Your task to perform on an android device: delete a single message in the gmail app Image 0: 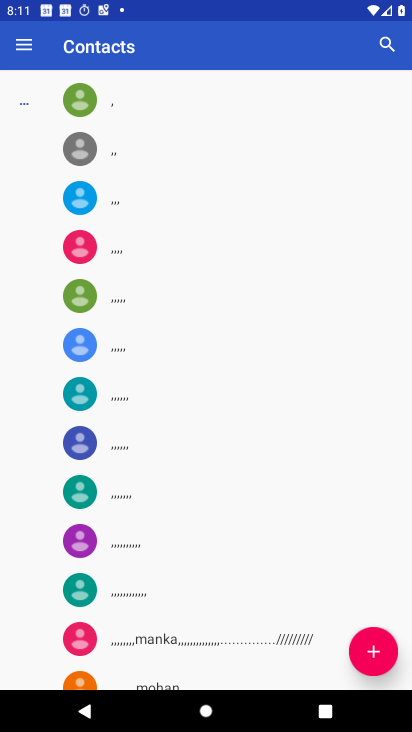
Step 0: press home button
Your task to perform on an android device: delete a single message in the gmail app Image 1: 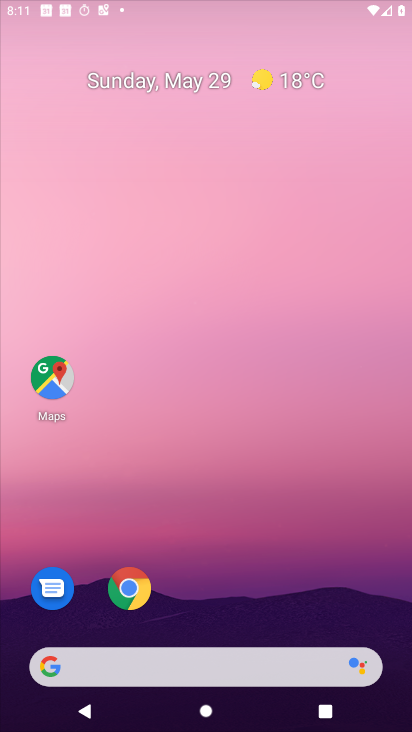
Step 1: drag from (175, 552) to (234, 147)
Your task to perform on an android device: delete a single message in the gmail app Image 2: 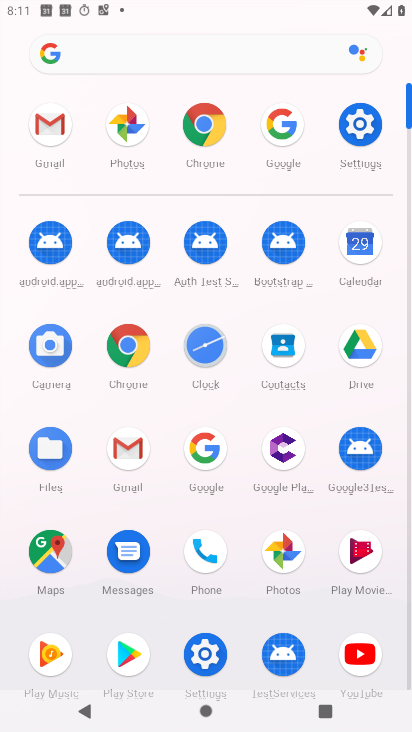
Step 2: click (47, 126)
Your task to perform on an android device: delete a single message in the gmail app Image 3: 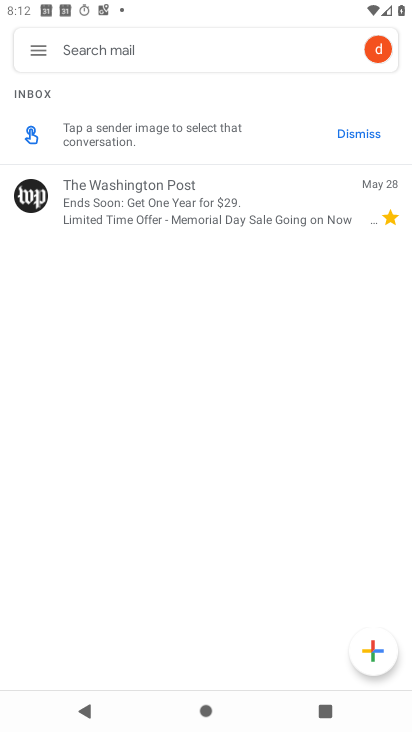
Step 3: click (148, 206)
Your task to perform on an android device: delete a single message in the gmail app Image 4: 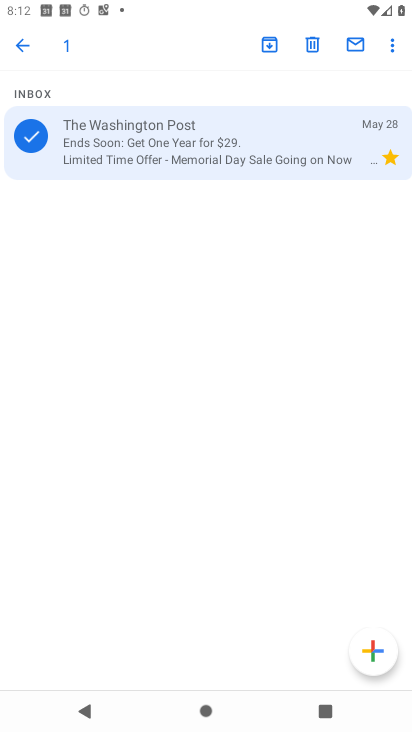
Step 4: click (309, 41)
Your task to perform on an android device: delete a single message in the gmail app Image 5: 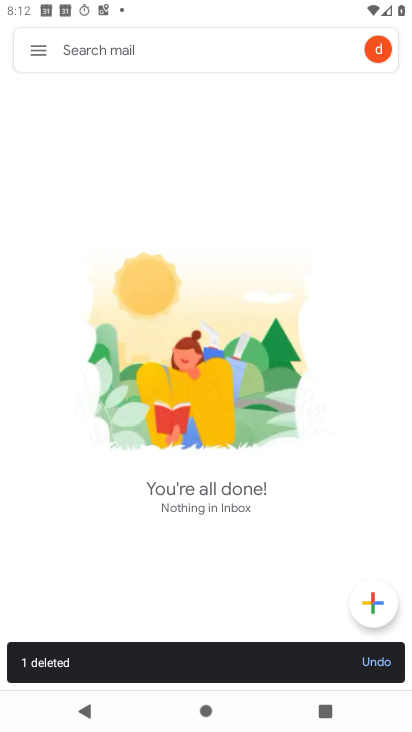
Step 5: task complete